Your task to perform on an android device: refresh tabs in the chrome app Image 0: 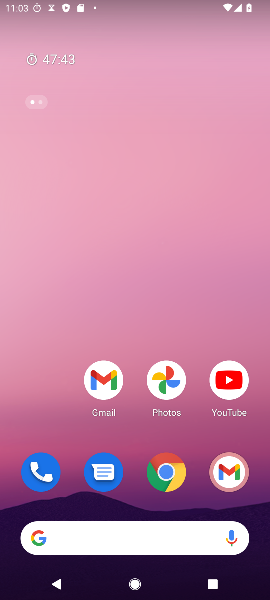
Step 0: click (176, 482)
Your task to perform on an android device: refresh tabs in the chrome app Image 1: 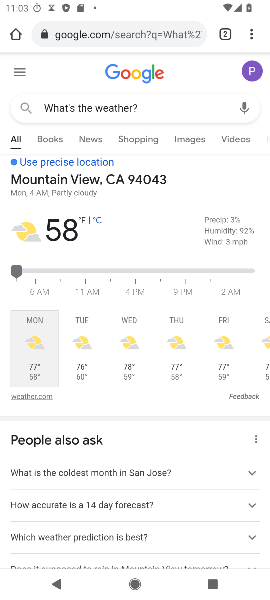
Step 1: click (249, 35)
Your task to perform on an android device: refresh tabs in the chrome app Image 2: 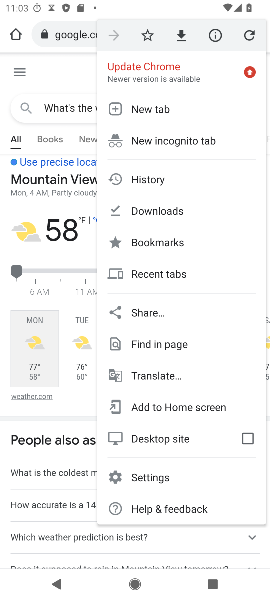
Step 2: click (249, 38)
Your task to perform on an android device: refresh tabs in the chrome app Image 3: 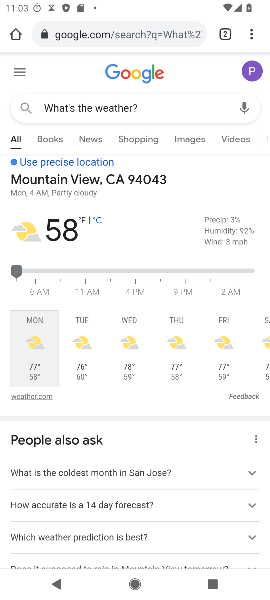
Step 3: task complete